Your task to perform on an android device: open chrome privacy settings Image 0: 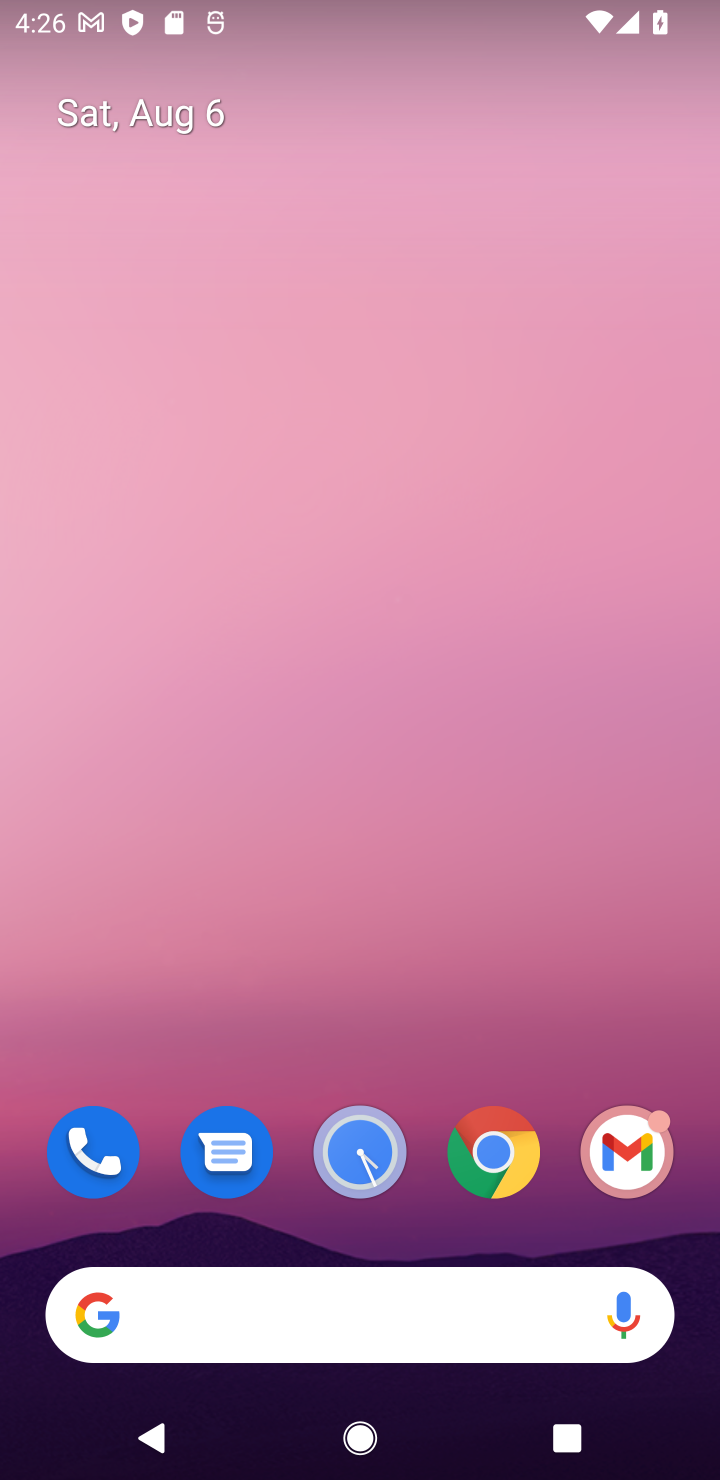
Step 0: drag from (422, 1162) to (470, 152)
Your task to perform on an android device: open chrome privacy settings Image 1: 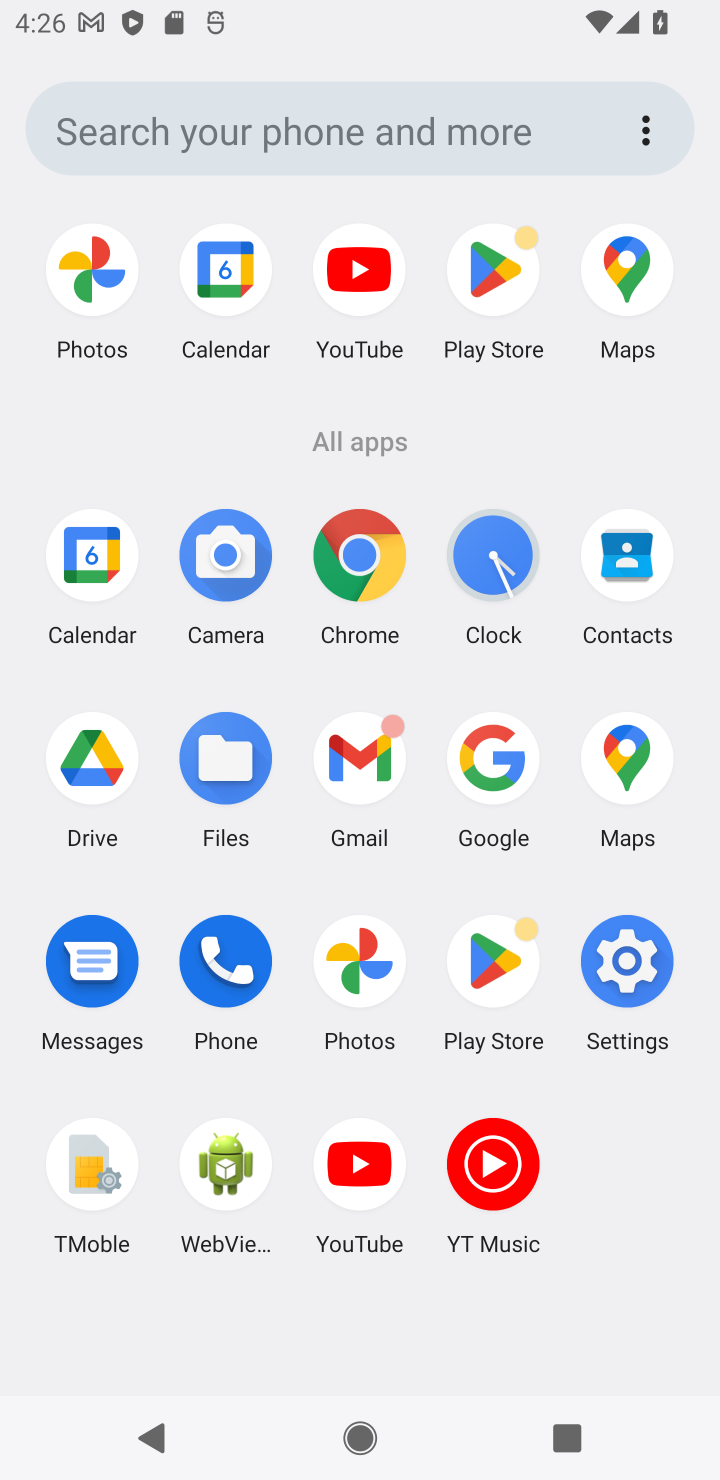
Step 1: click (355, 563)
Your task to perform on an android device: open chrome privacy settings Image 2: 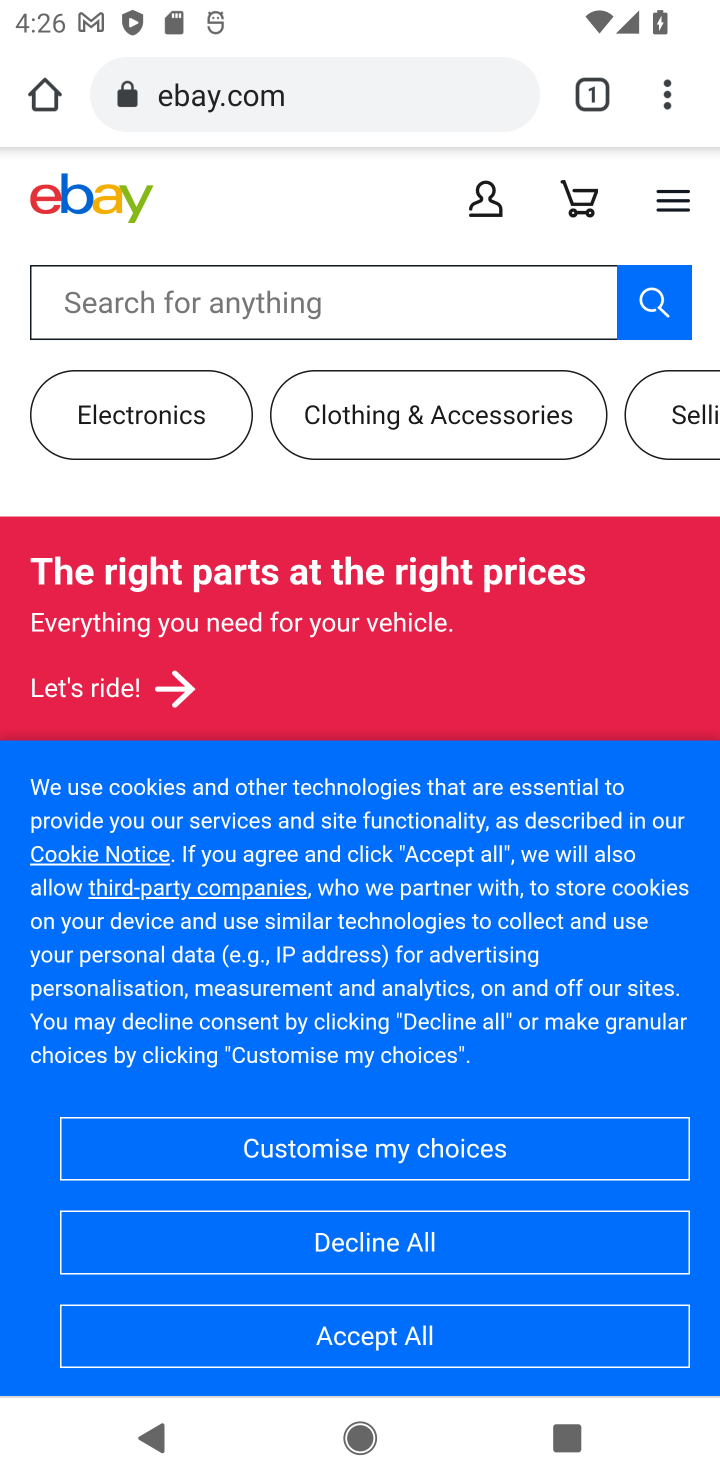
Step 2: drag from (677, 91) to (429, 1253)
Your task to perform on an android device: open chrome privacy settings Image 3: 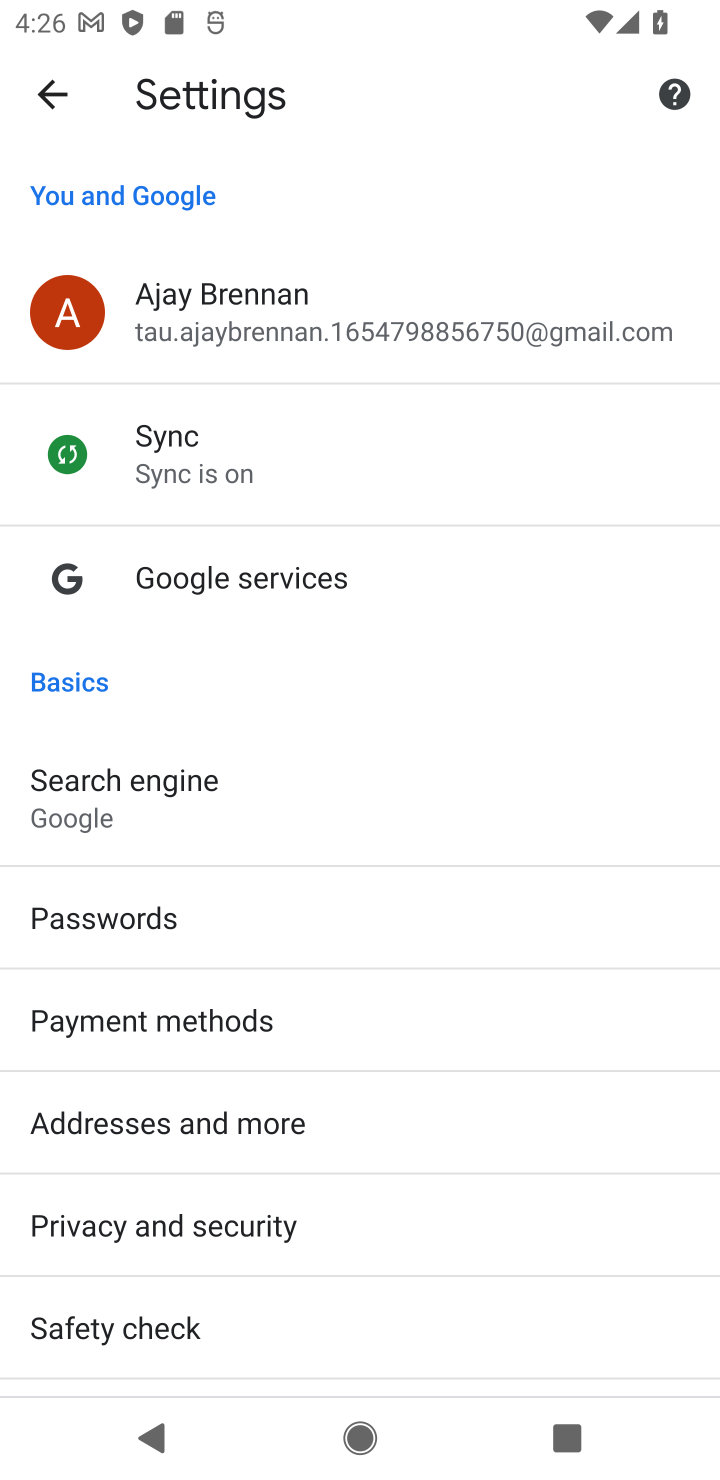
Step 3: drag from (391, 1165) to (433, 392)
Your task to perform on an android device: open chrome privacy settings Image 4: 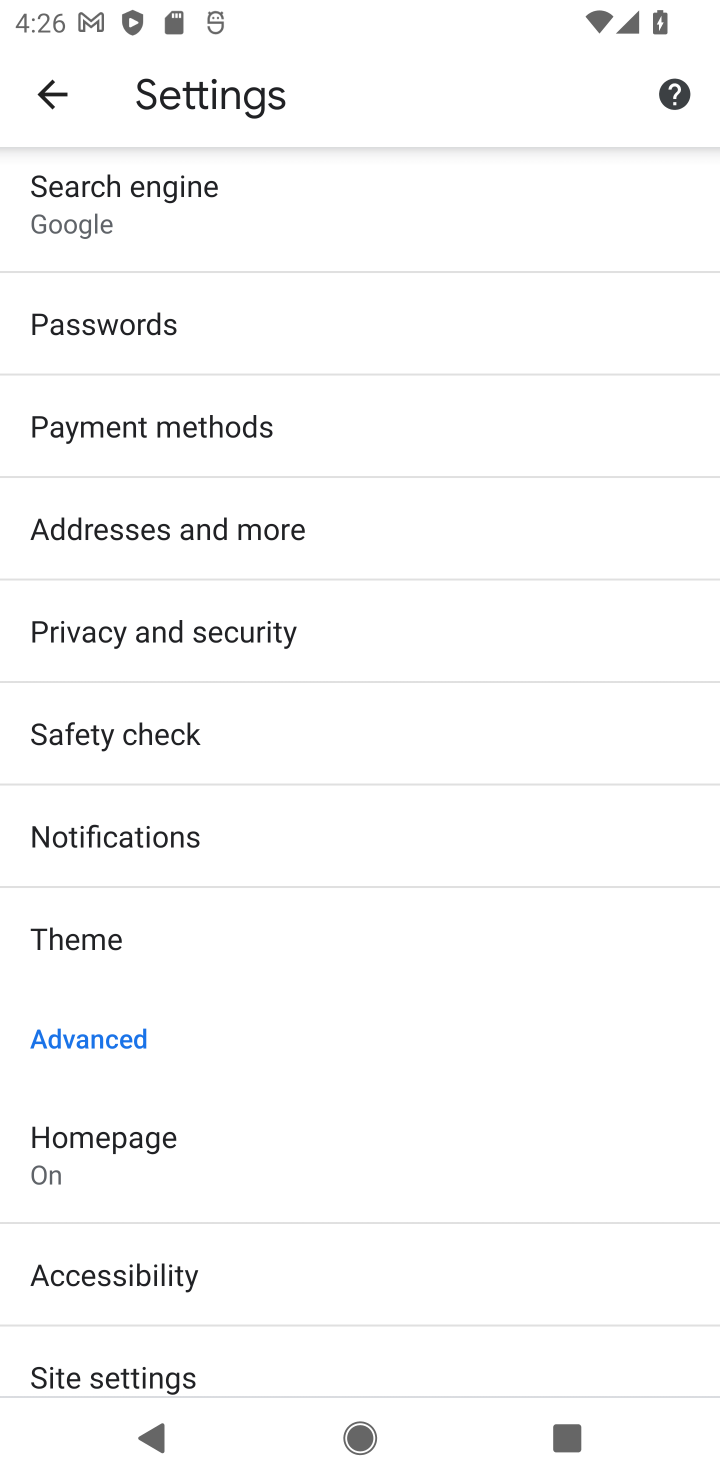
Step 4: drag from (434, 1173) to (515, 589)
Your task to perform on an android device: open chrome privacy settings Image 5: 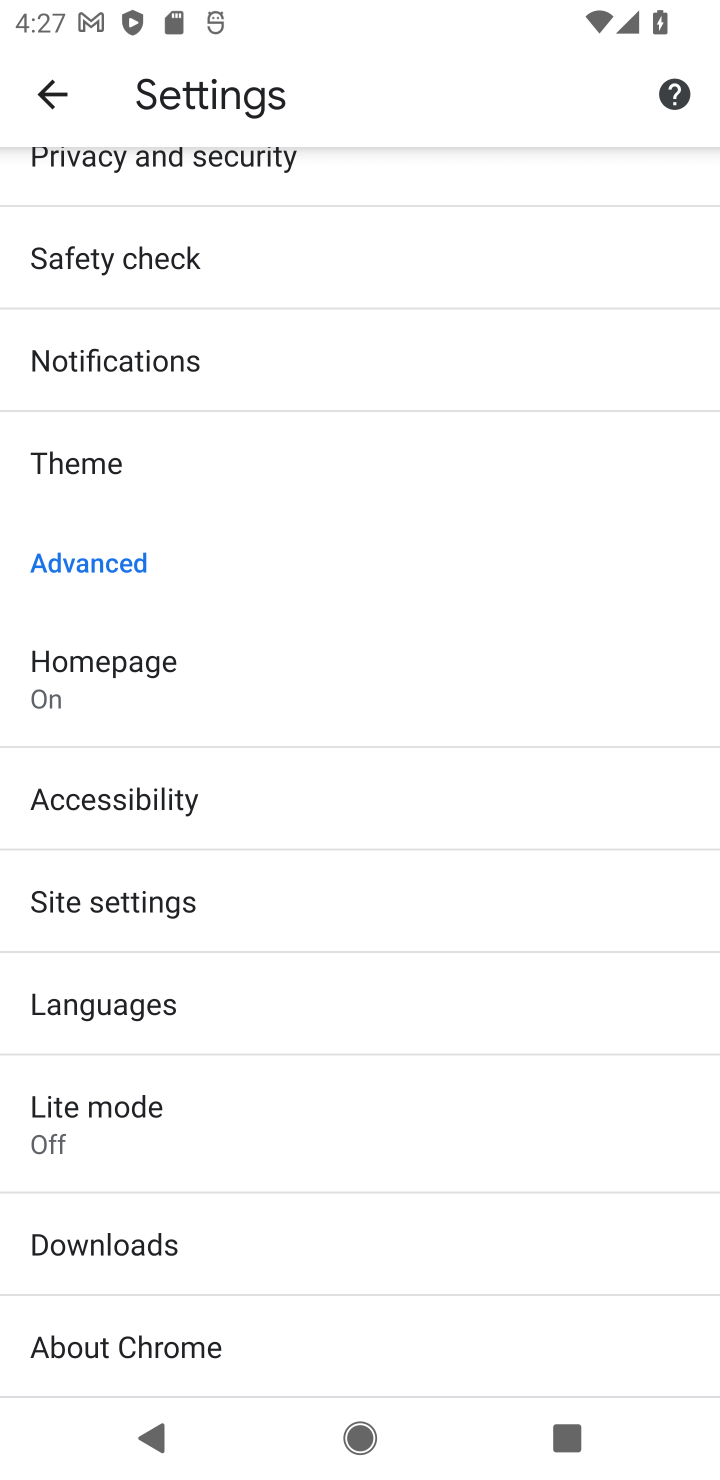
Step 5: drag from (477, 630) to (368, 803)
Your task to perform on an android device: open chrome privacy settings Image 6: 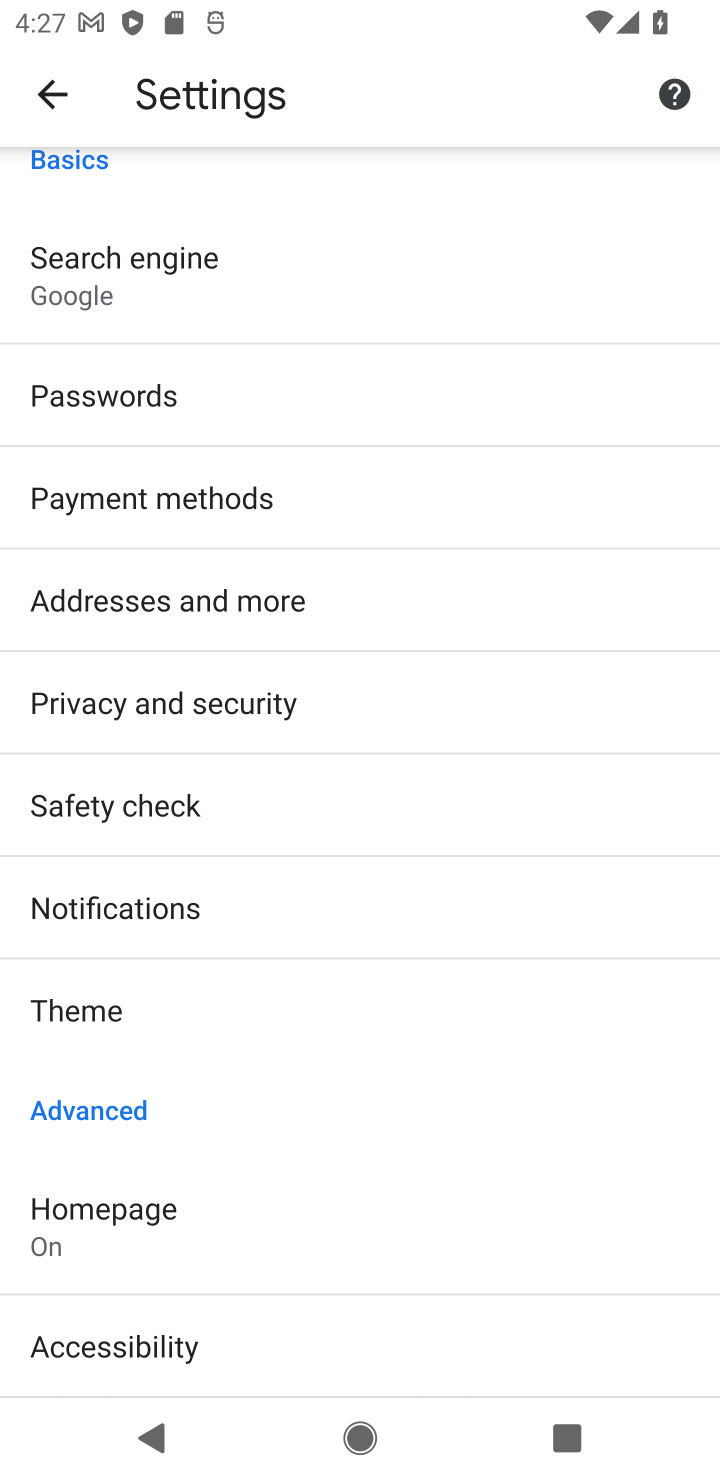
Step 6: click (165, 705)
Your task to perform on an android device: open chrome privacy settings Image 7: 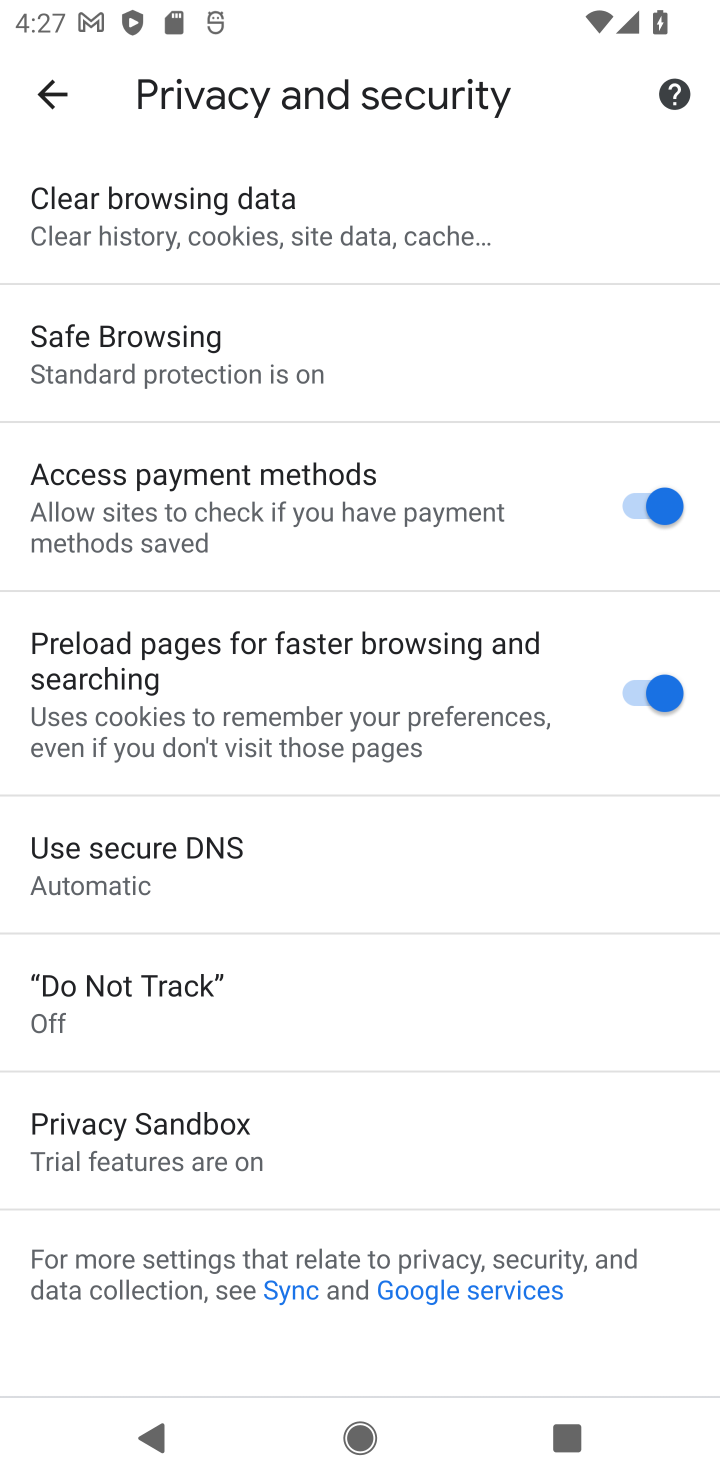
Step 7: task complete